Your task to perform on an android device: Open calendar and show me the fourth week of next month Image 0: 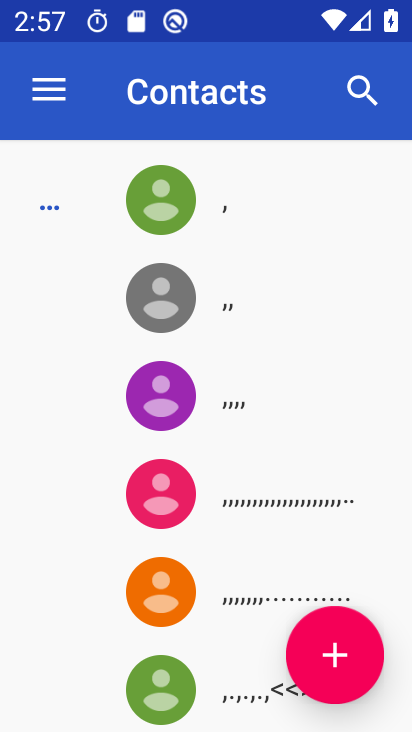
Step 0: press home button
Your task to perform on an android device: Open calendar and show me the fourth week of next month Image 1: 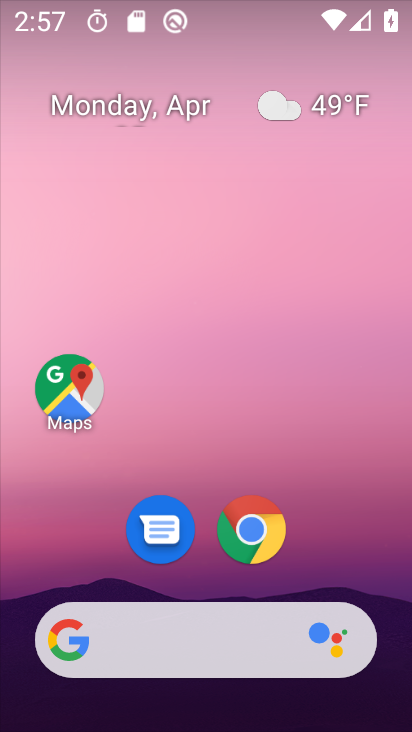
Step 1: drag from (383, 367) to (372, 190)
Your task to perform on an android device: Open calendar and show me the fourth week of next month Image 2: 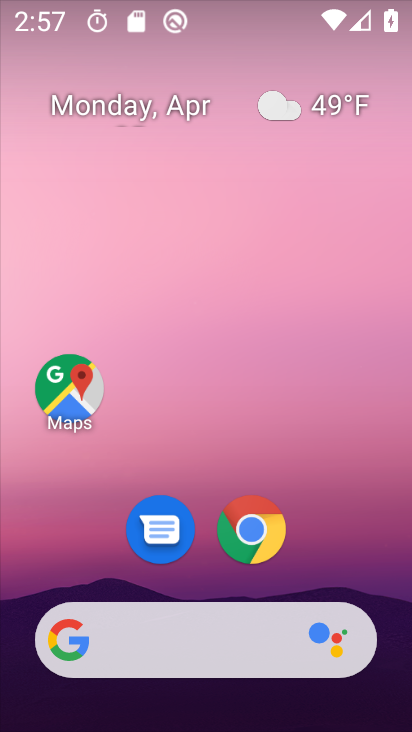
Step 2: drag from (368, 364) to (357, 204)
Your task to perform on an android device: Open calendar and show me the fourth week of next month Image 3: 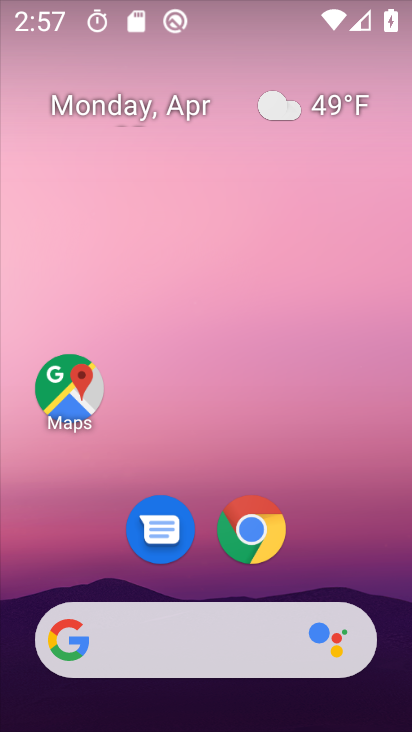
Step 3: drag from (388, 472) to (367, 79)
Your task to perform on an android device: Open calendar and show me the fourth week of next month Image 4: 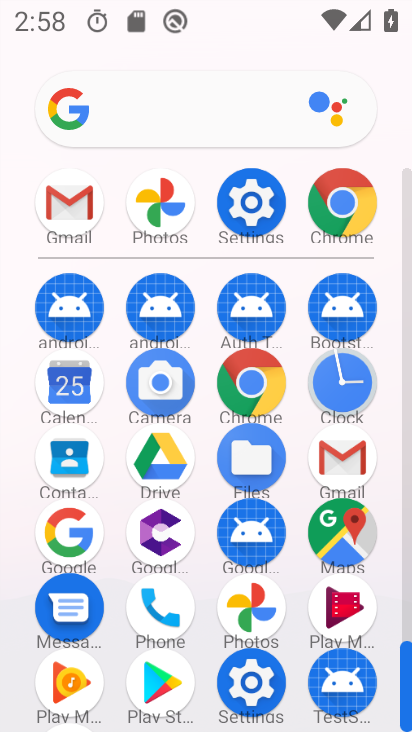
Step 4: click (73, 400)
Your task to perform on an android device: Open calendar and show me the fourth week of next month Image 5: 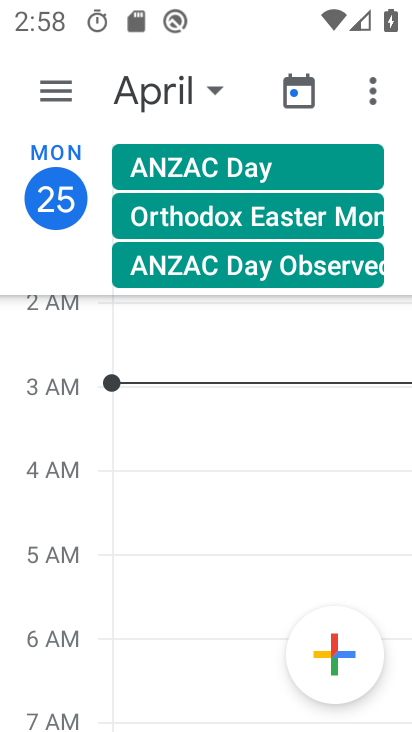
Step 5: click (215, 96)
Your task to perform on an android device: Open calendar and show me the fourth week of next month Image 6: 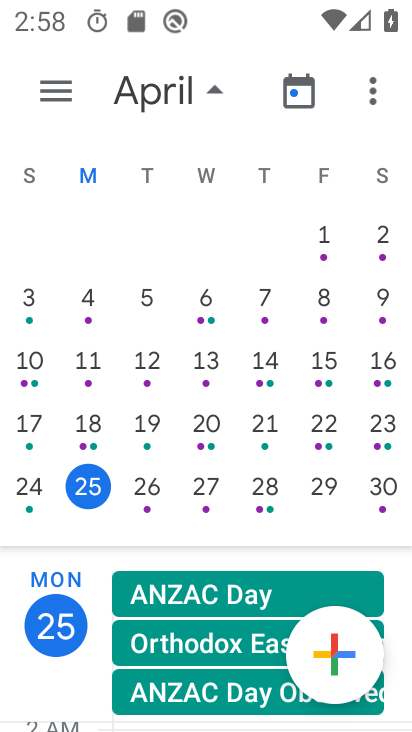
Step 6: drag from (399, 385) to (1, 418)
Your task to perform on an android device: Open calendar and show me the fourth week of next month Image 7: 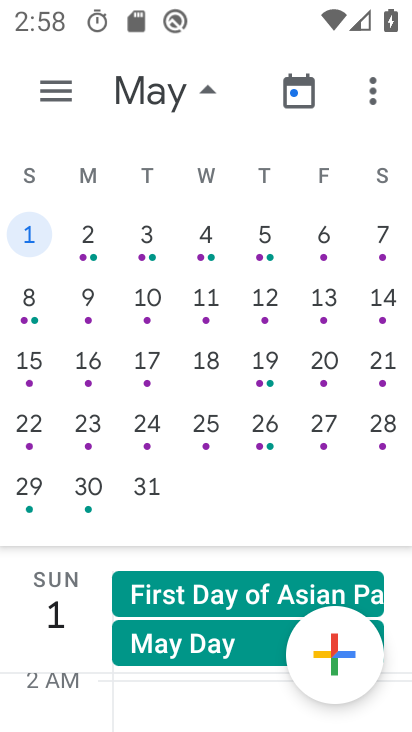
Step 7: click (261, 414)
Your task to perform on an android device: Open calendar and show me the fourth week of next month Image 8: 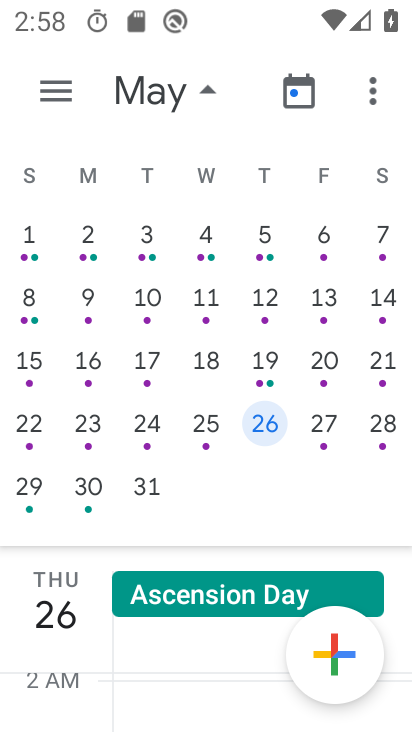
Step 8: task complete